Your task to perform on an android device: toggle improve location accuracy Image 0: 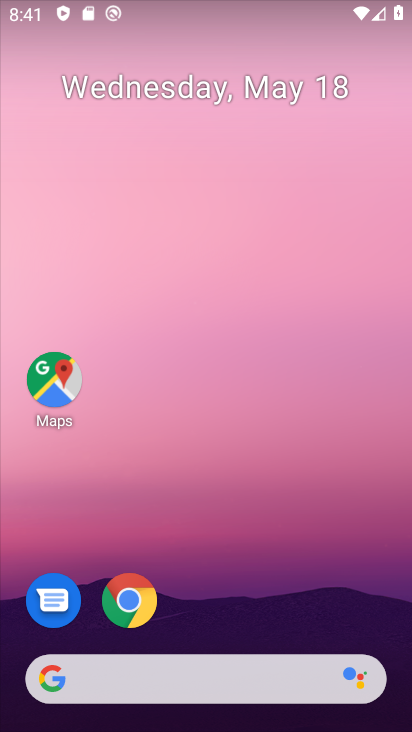
Step 0: press home button
Your task to perform on an android device: toggle improve location accuracy Image 1: 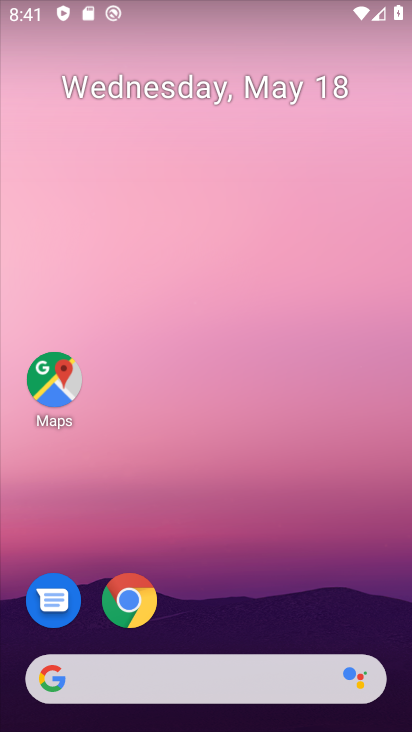
Step 1: drag from (22, 636) to (267, 87)
Your task to perform on an android device: toggle improve location accuracy Image 2: 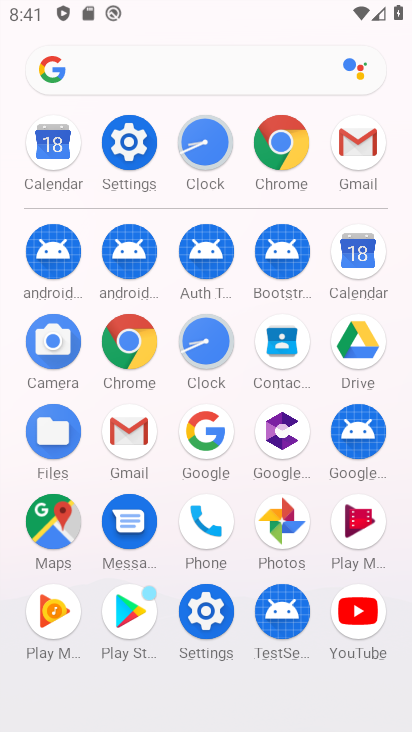
Step 2: click (128, 141)
Your task to perform on an android device: toggle improve location accuracy Image 3: 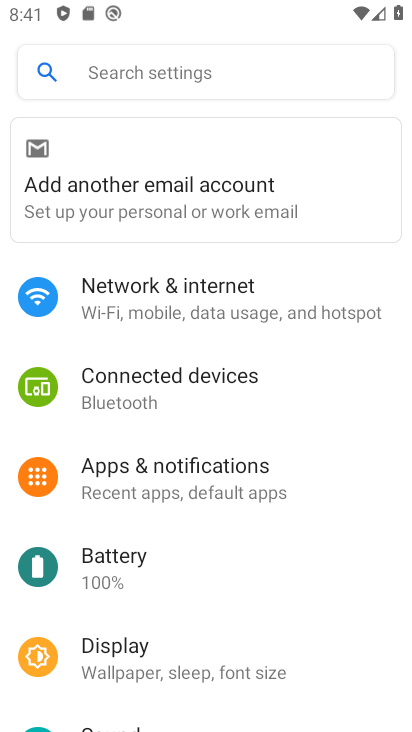
Step 3: drag from (128, 686) to (212, 169)
Your task to perform on an android device: toggle improve location accuracy Image 4: 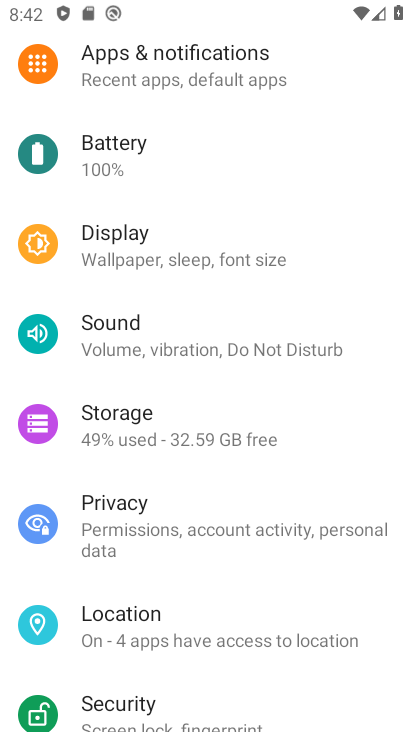
Step 4: click (129, 640)
Your task to perform on an android device: toggle improve location accuracy Image 5: 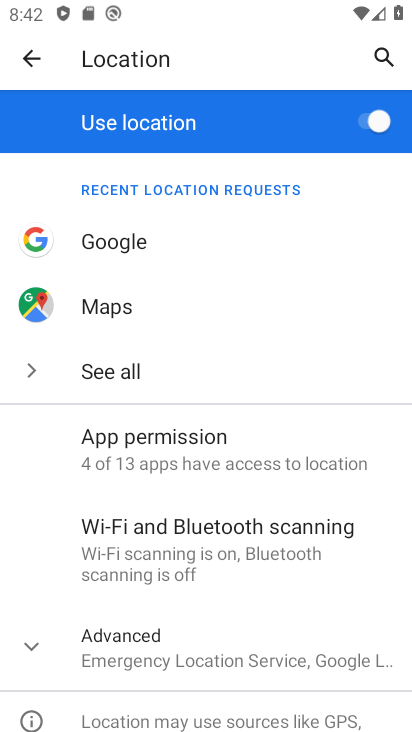
Step 5: click (228, 650)
Your task to perform on an android device: toggle improve location accuracy Image 6: 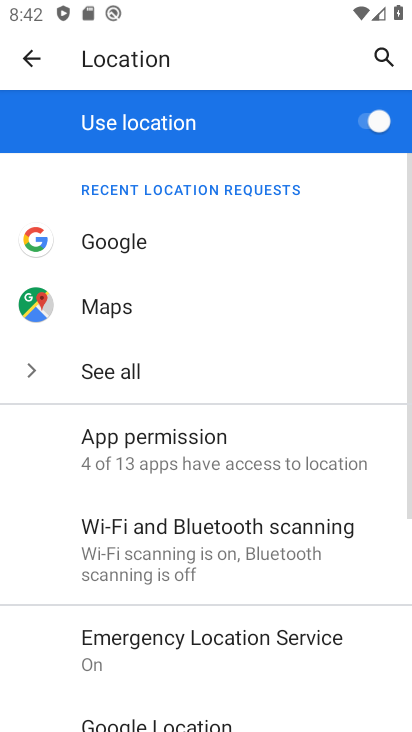
Step 6: drag from (8, 480) to (205, 94)
Your task to perform on an android device: toggle improve location accuracy Image 7: 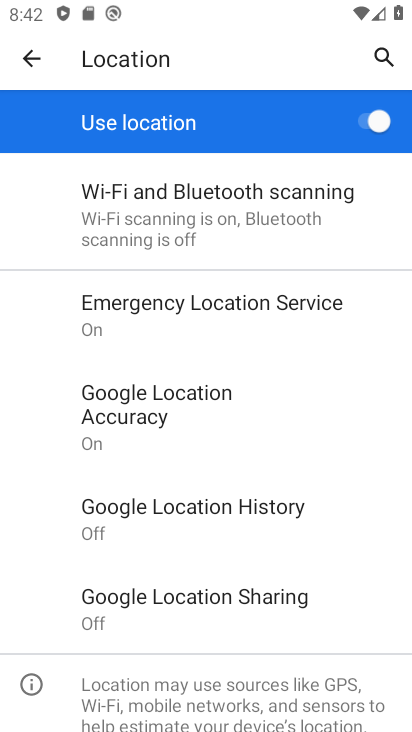
Step 7: click (156, 416)
Your task to perform on an android device: toggle improve location accuracy Image 8: 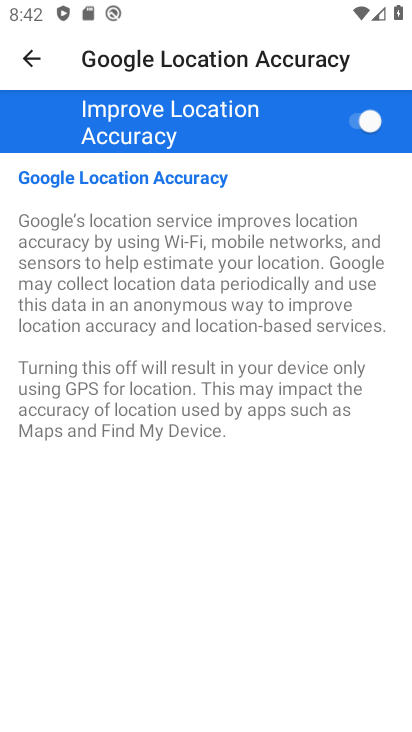
Step 8: click (374, 130)
Your task to perform on an android device: toggle improve location accuracy Image 9: 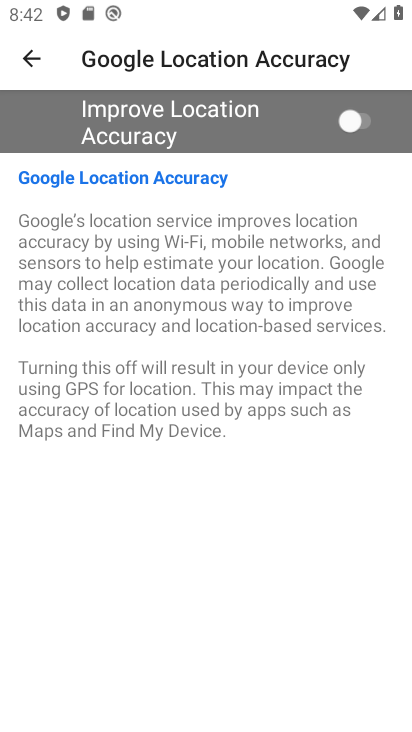
Step 9: task complete